Your task to perform on an android device: Open Google Chrome and open the bookmarks view Image 0: 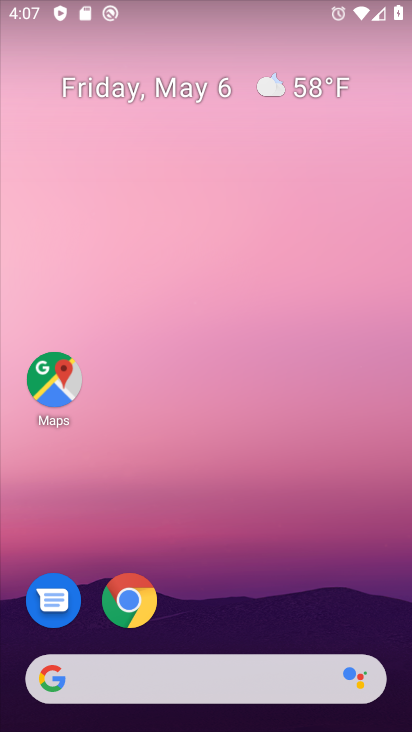
Step 0: click (139, 609)
Your task to perform on an android device: Open Google Chrome and open the bookmarks view Image 1: 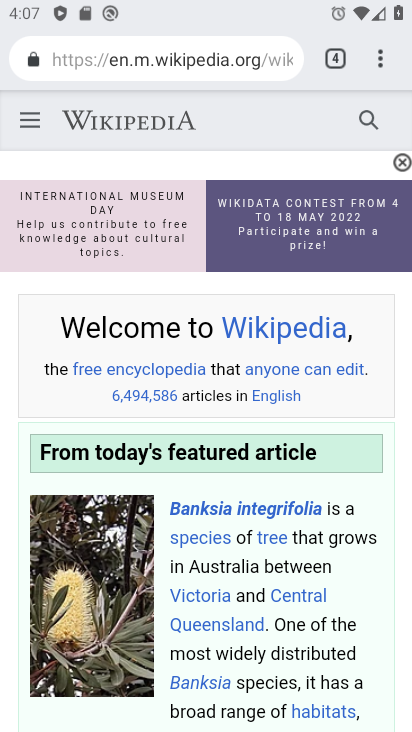
Step 1: click (386, 76)
Your task to perform on an android device: Open Google Chrome and open the bookmarks view Image 2: 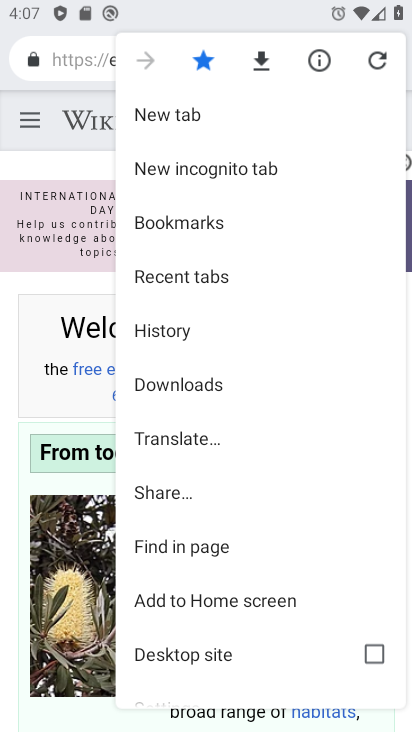
Step 2: drag from (182, 613) to (230, 387)
Your task to perform on an android device: Open Google Chrome and open the bookmarks view Image 3: 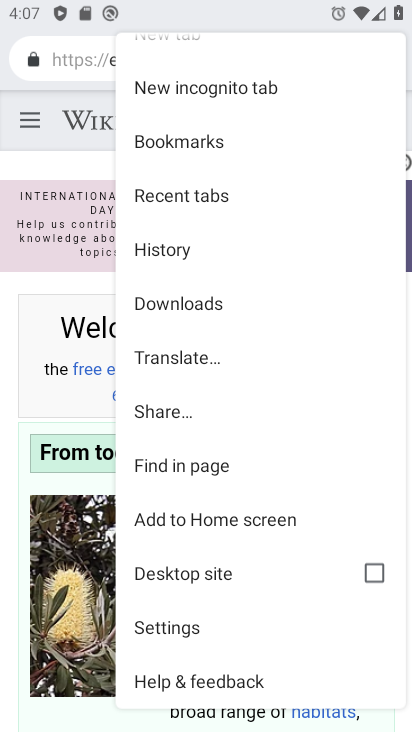
Step 3: click (185, 626)
Your task to perform on an android device: Open Google Chrome and open the bookmarks view Image 4: 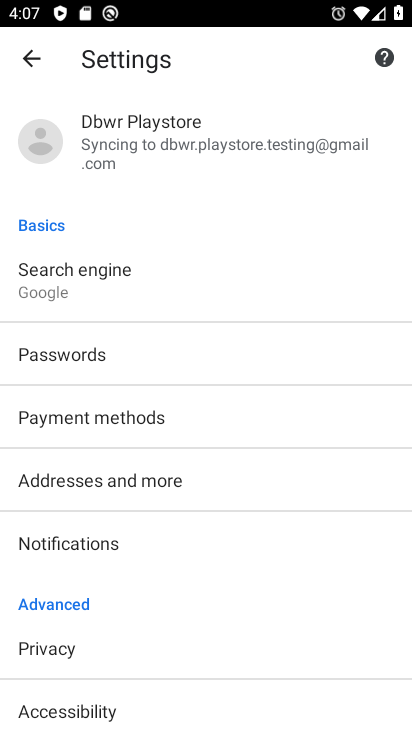
Step 4: click (36, 55)
Your task to perform on an android device: Open Google Chrome and open the bookmarks view Image 5: 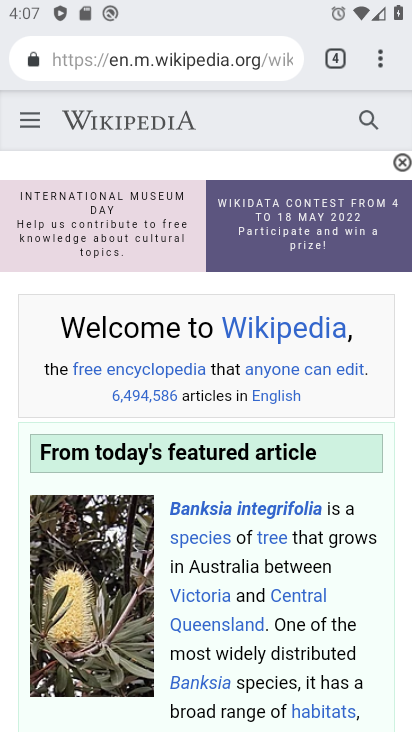
Step 5: click (392, 56)
Your task to perform on an android device: Open Google Chrome and open the bookmarks view Image 6: 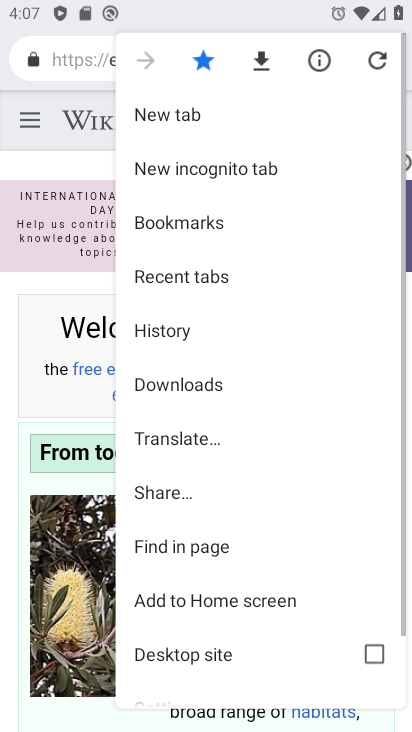
Step 6: click (168, 216)
Your task to perform on an android device: Open Google Chrome and open the bookmarks view Image 7: 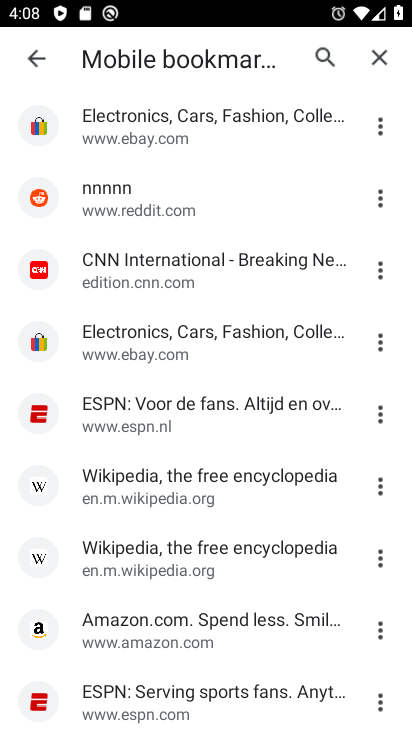
Step 7: task complete